Your task to perform on an android device: Do I have any events today? Image 0: 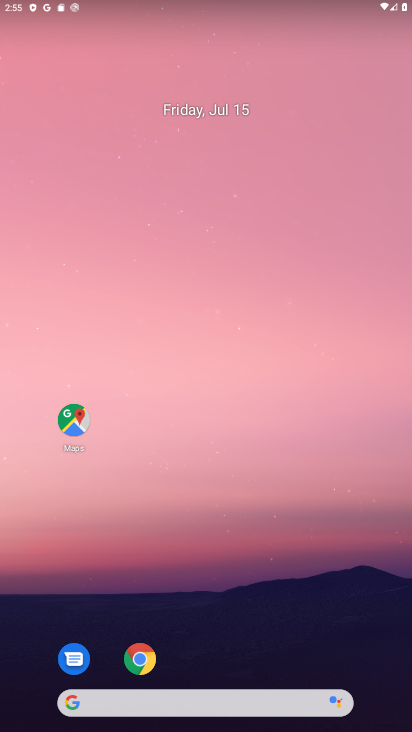
Step 0: drag from (201, 575) to (136, 63)
Your task to perform on an android device: Do I have any events today? Image 1: 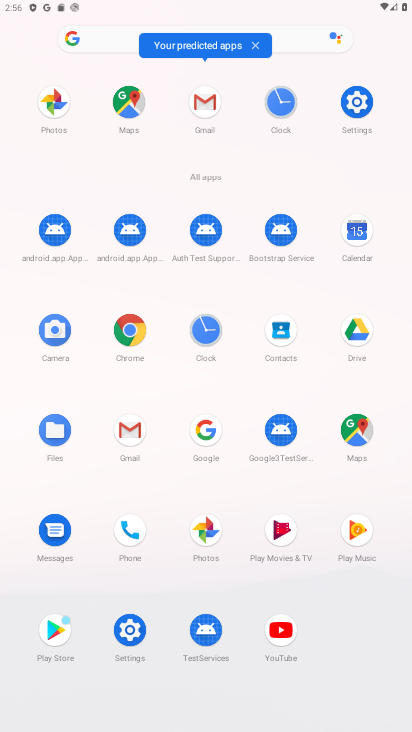
Step 1: click (350, 231)
Your task to perform on an android device: Do I have any events today? Image 2: 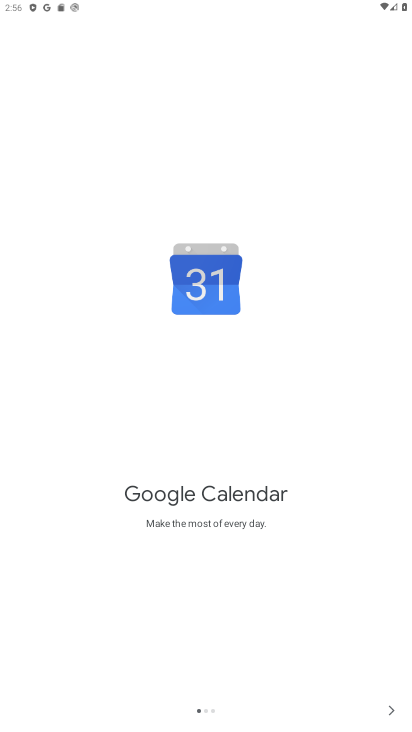
Step 2: click (389, 710)
Your task to perform on an android device: Do I have any events today? Image 3: 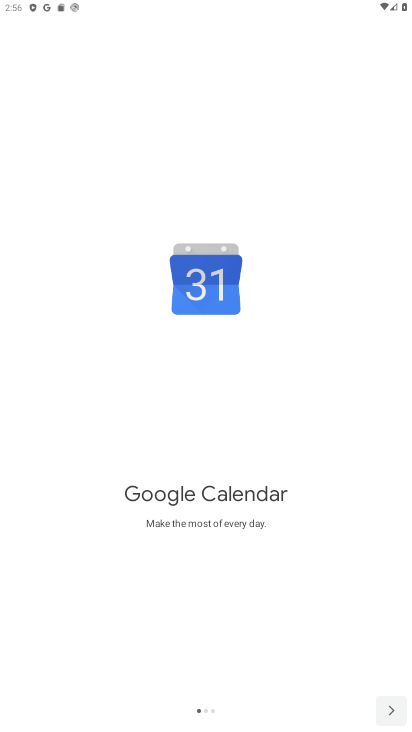
Step 3: click (389, 710)
Your task to perform on an android device: Do I have any events today? Image 4: 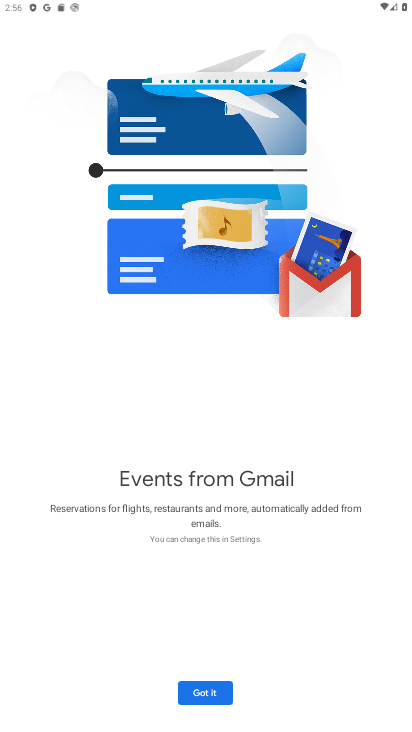
Step 4: click (194, 698)
Your task to perform on an android device: Do I have any events today? Image 5: 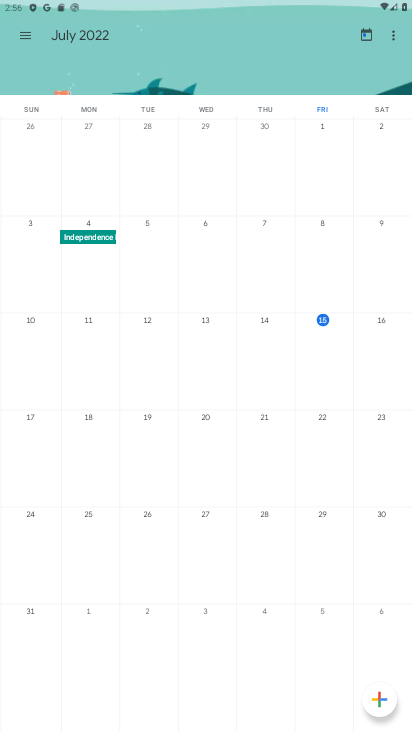
Step 5: click (327, 318)
Your task to perform on an android device: Do I have any events today? Image 6: 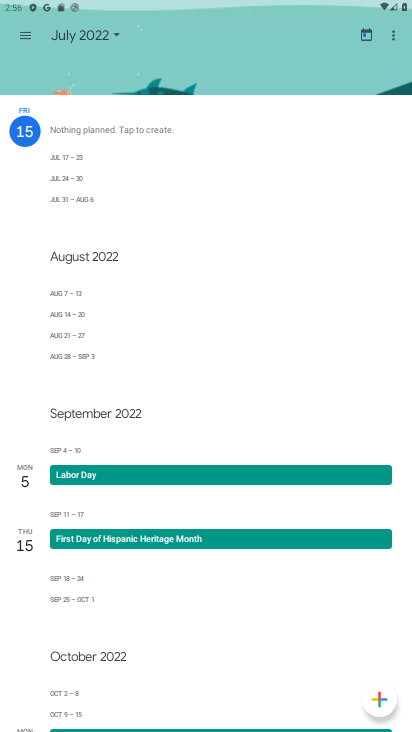
Step 6: task complete